Your task to perform on an android device: Set an alarm for 12pm Image 0: 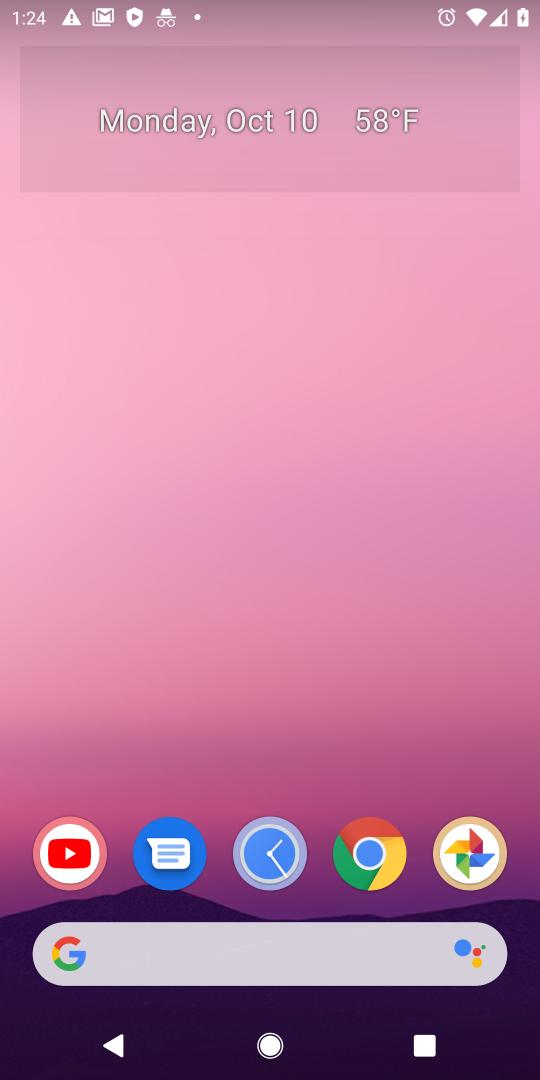
Step 0: click (364, 860)
Your task to perform on an android device: Set an alarm for 12pm Image 1: 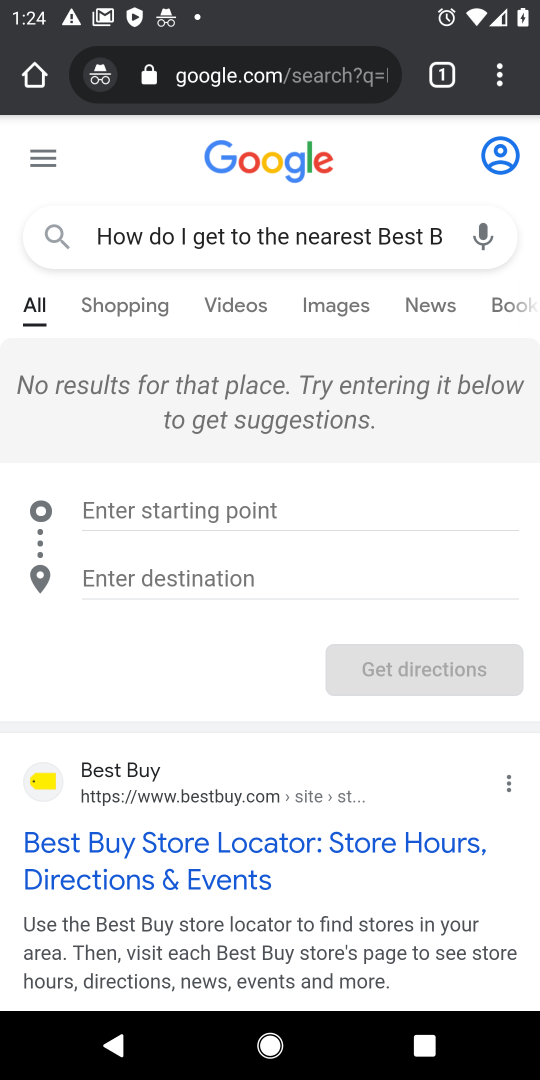
Step 1: press home button
Your task to perform on an android device: Set an alarm for 12pm Image 2: 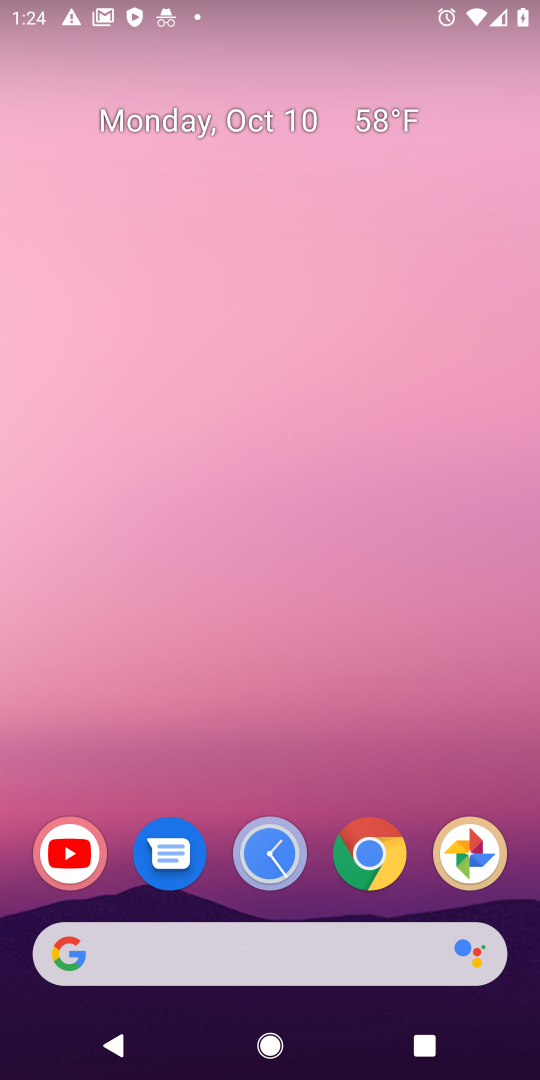
Step 2: drag from (298, 938) to (345, 27)
Your task to perform on an android device: Set an alarm for 12pm Image 3: 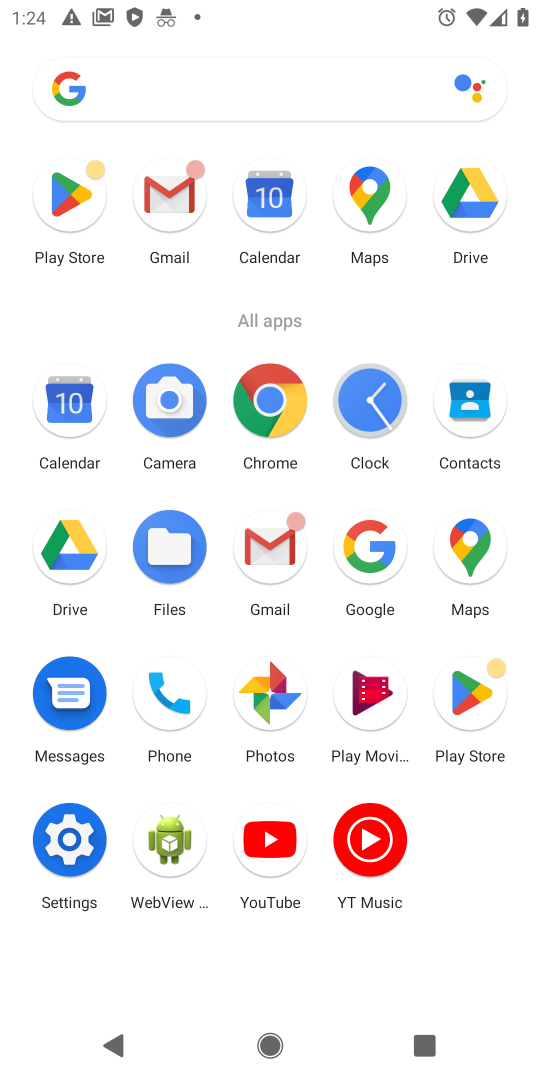
Step 3: click (370, 421)
Your task to perform on an android device: Set an alarm for 12pm Image 4: 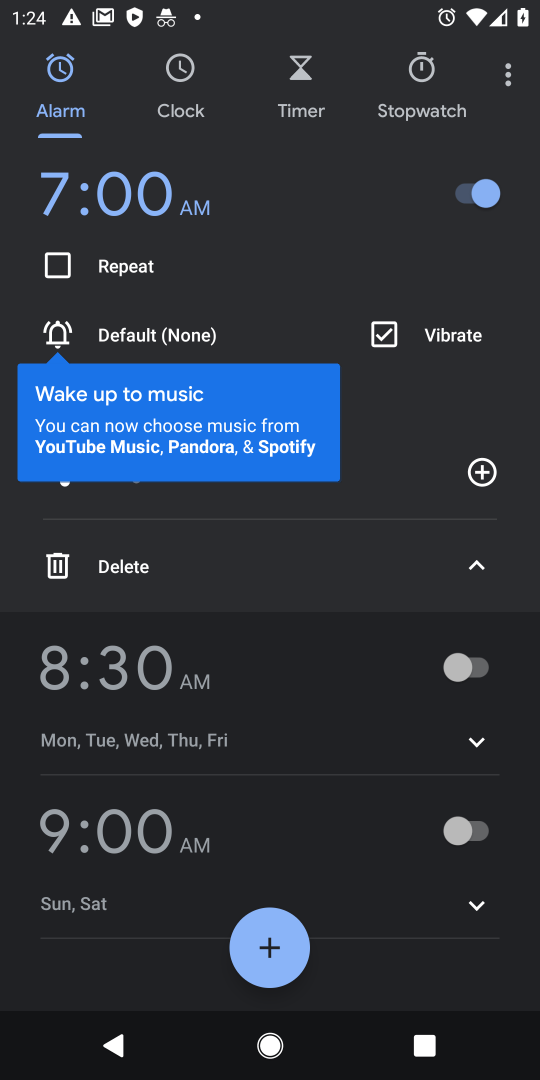
Step 4: click (276, 955)
Your task to perform on an android device: Set an alarm for 12pm Image 5: 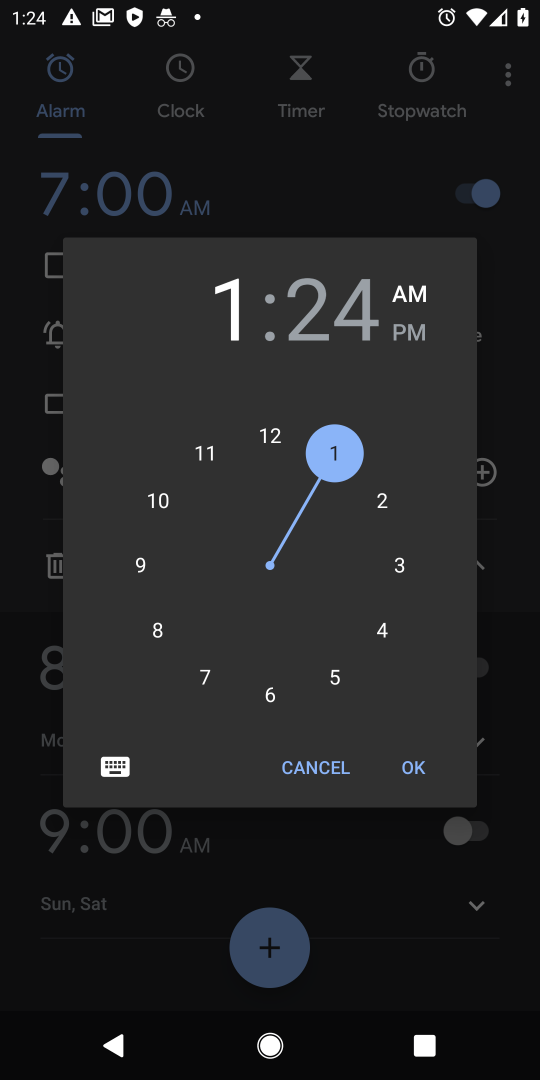
Step 5: click (267, 449)
Your task to perform on an android device: Set an alarm for 12pm Image 6: 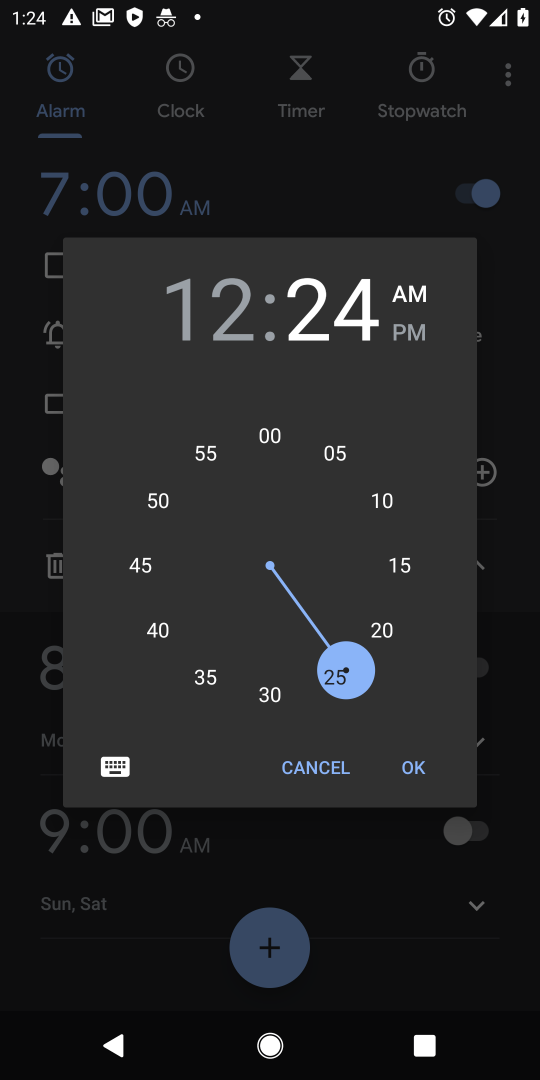
Step 6: click (278, 432)
Your task to perform on an android device: Set an alarm for 12pm Image 7: 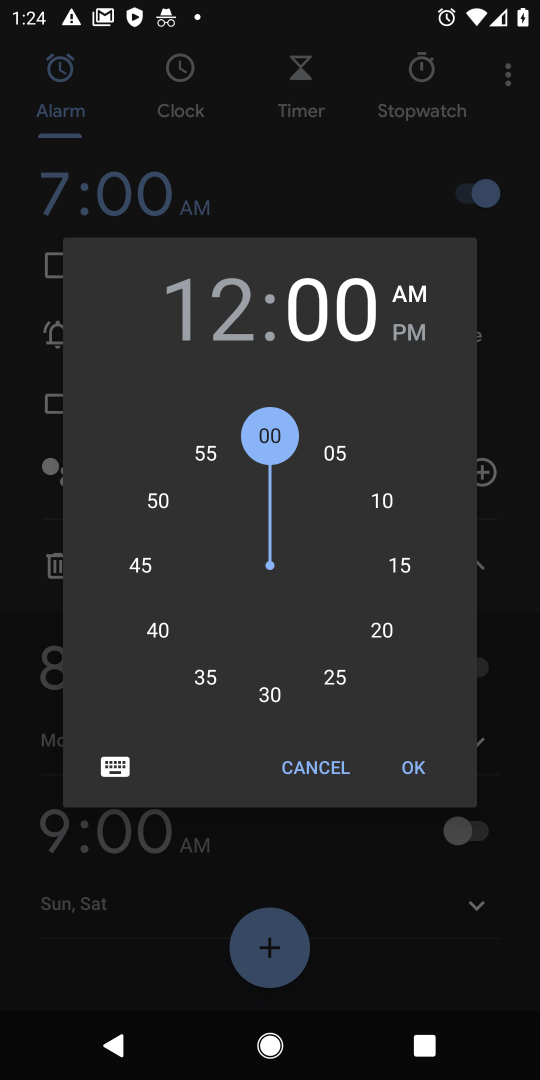
Step 7: click (408, 326)
Your task to perform on an android device: Set an alarm for 12pm Image 8: 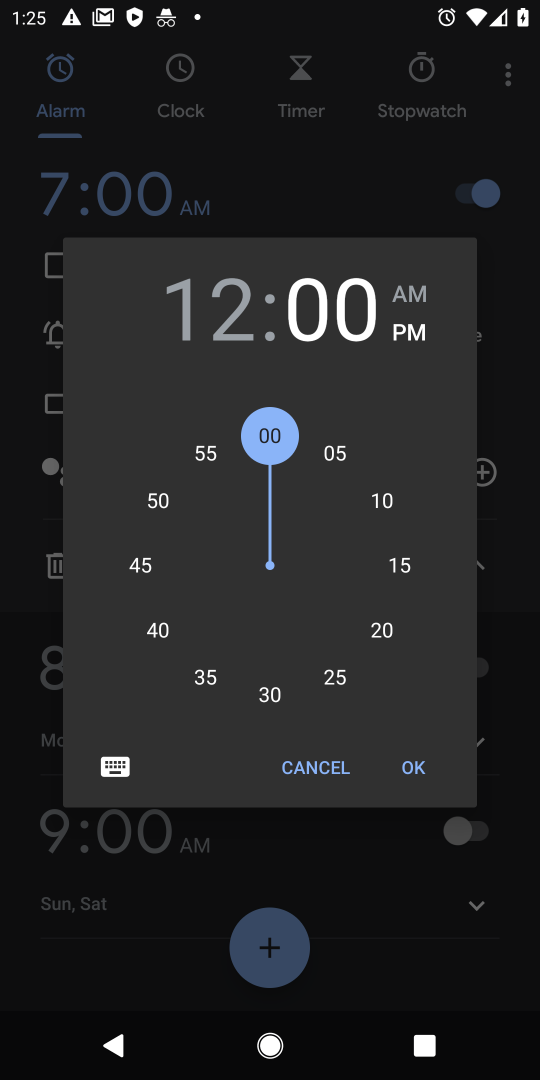
Step 8: click (414, 768)
Your task to perform on an android device: Set an alarm for 12pm Image 9: 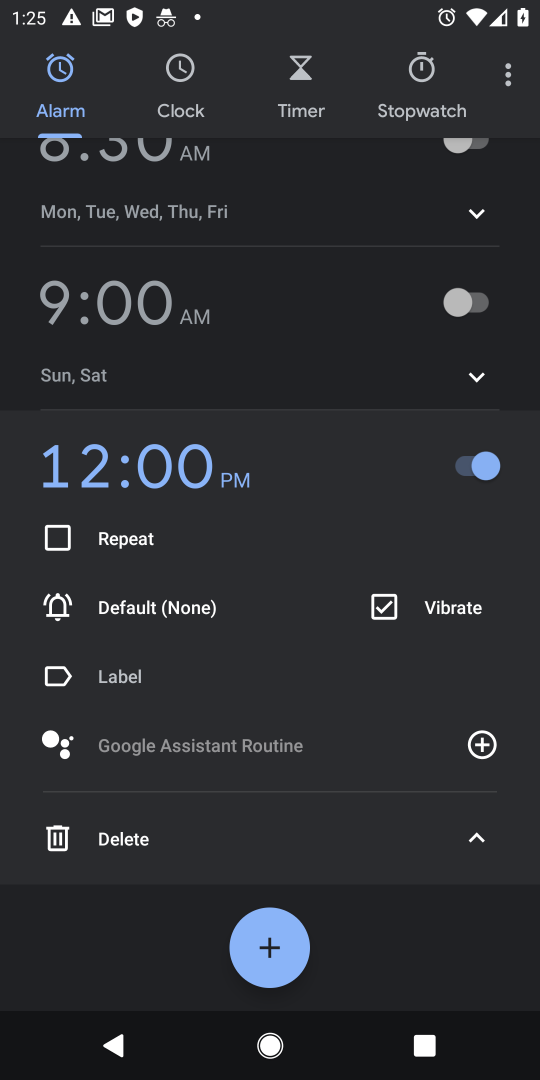
Step 9: task complete